Your task to perform on an android device: Show me popular videos on Youtube Image 0: 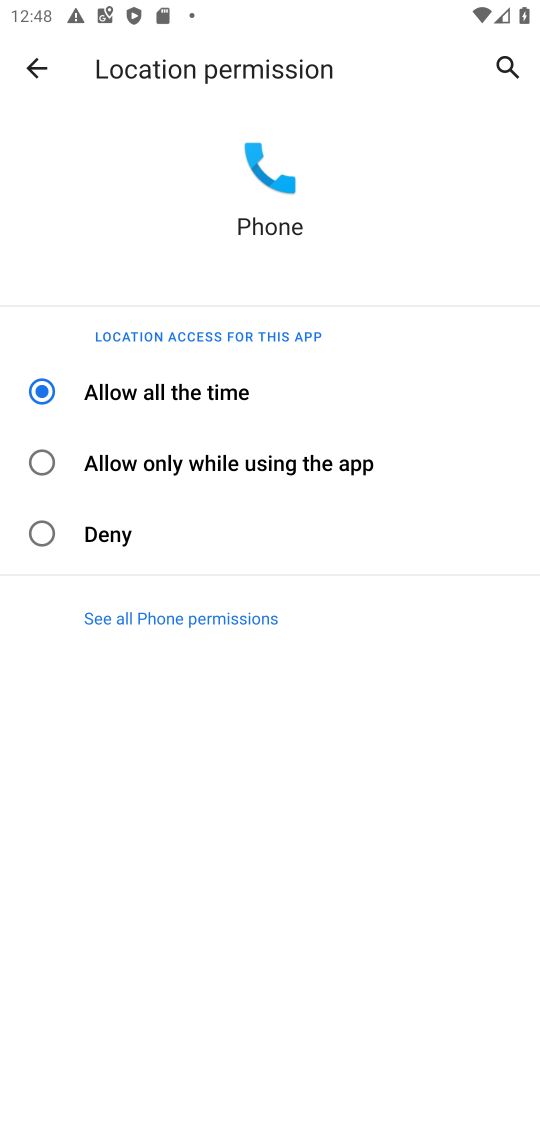
Step 0: press home button
Your task to perform on an android device: Show me popular videos on Youtube Image 1: 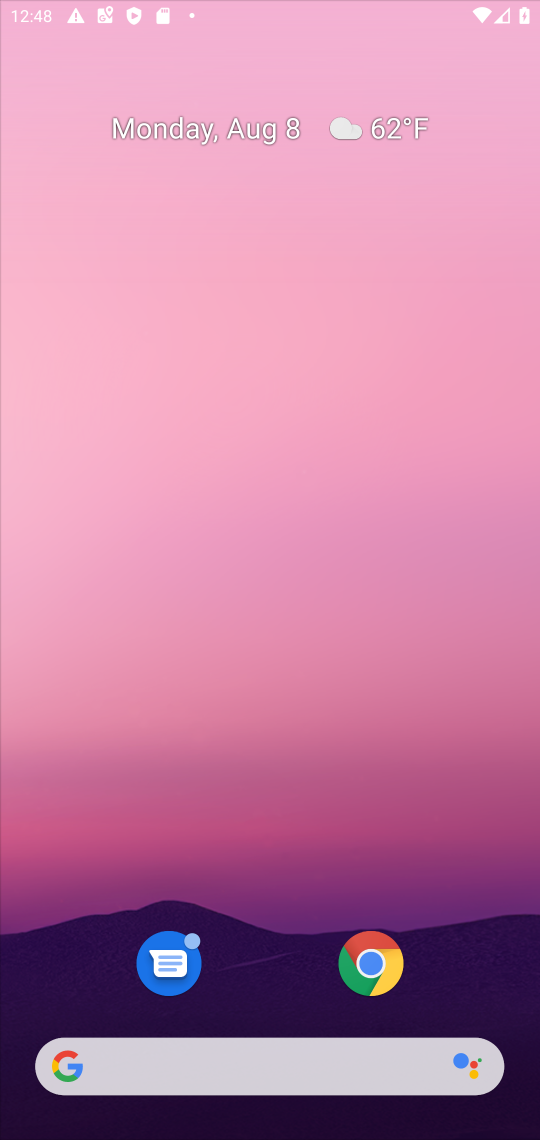
Step 1: drag from (500, 1000) to (246, 84)
Your task to perform on an android device: Show me popular videos on Youtube Image 2: 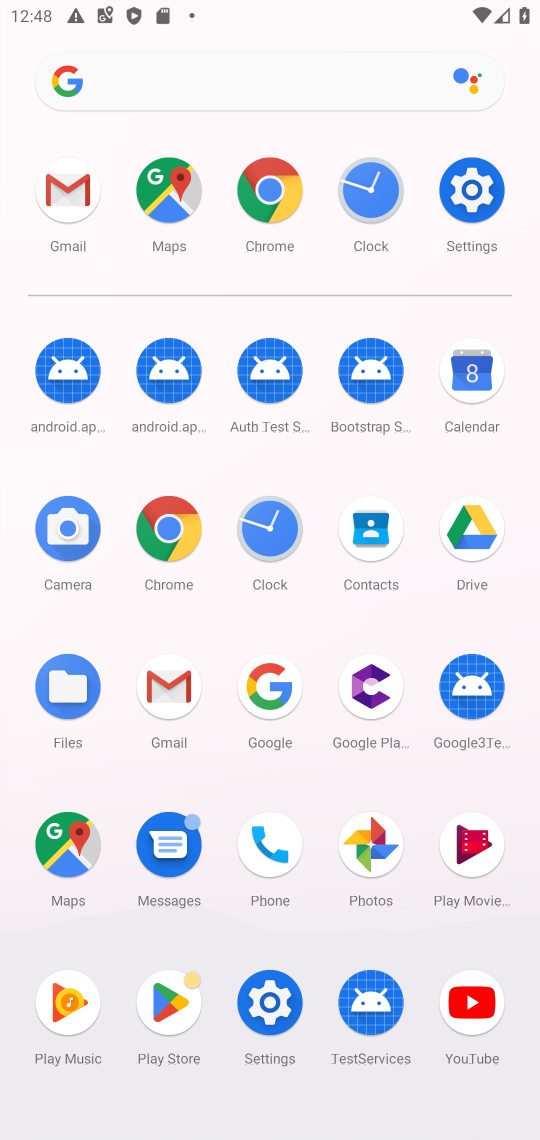
Step 2: click (489, 1027)
Your task to perform on an android device: Show me popular videos on Youtube Image 3: 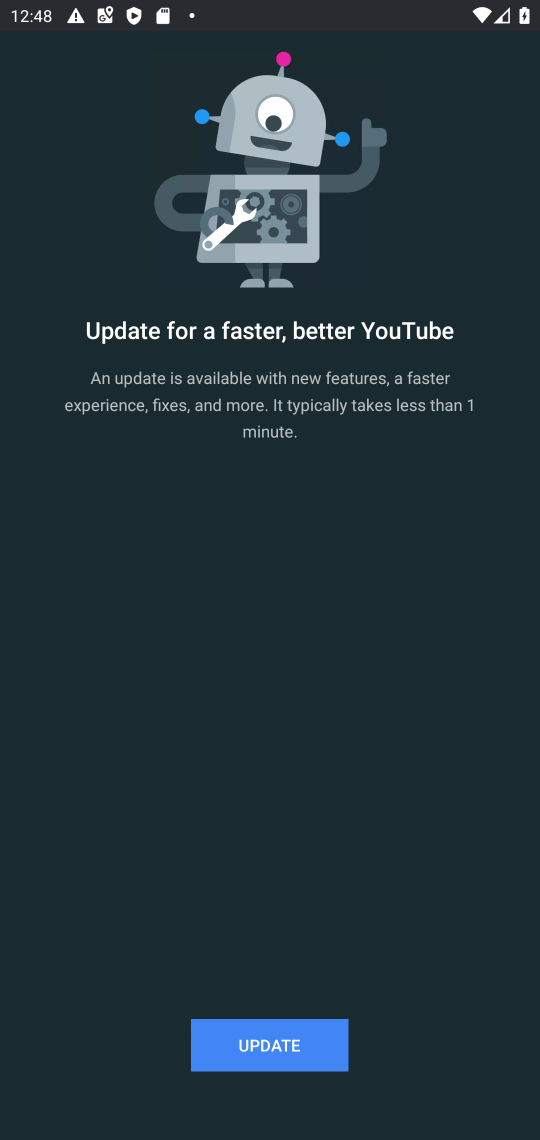
Step 3: task complete